Your task to perform on an android device: Set the phone to "Do not disturb". Image 0: 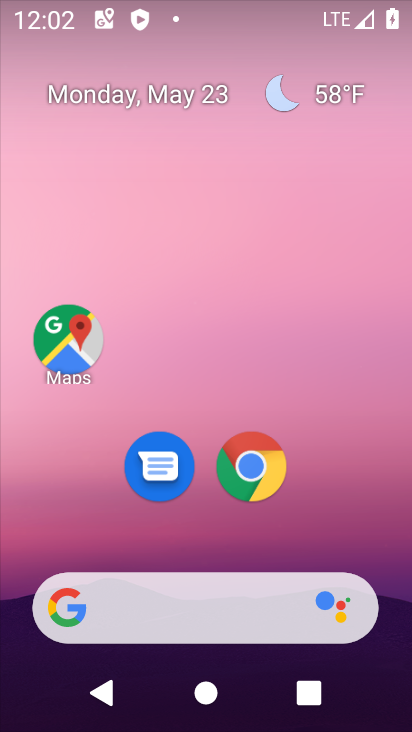
Step 0: drag from (164, 547) to (218, 64)
Your task to perform on an android device: Set the phone to "Do not disturb". Image 1: 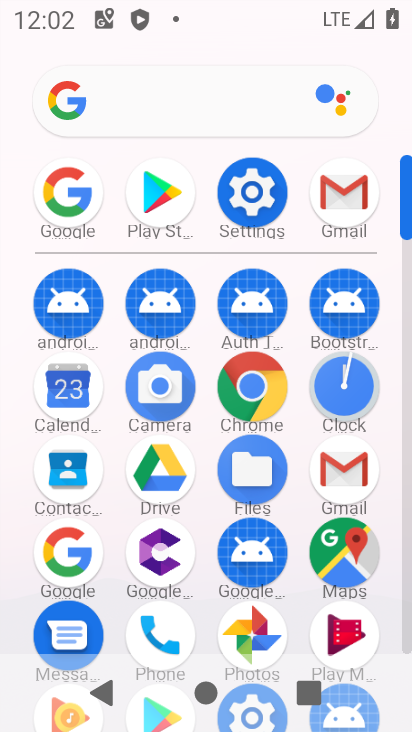
Step 1: click (248, 191)
Your task to perform on an android device: Set the phone to "Do not disturb". Image 2: 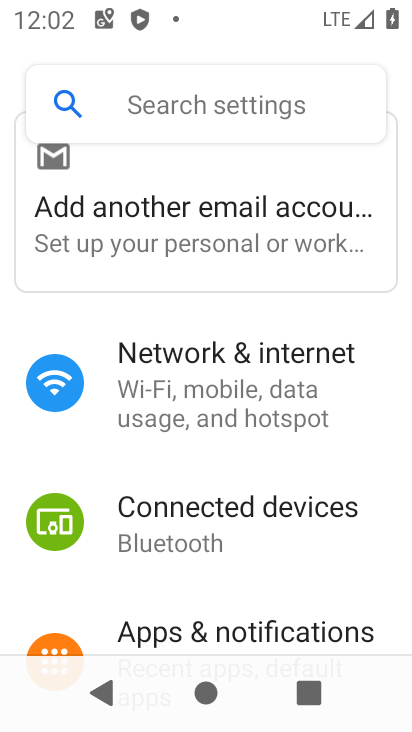
Step 2: drag from (246, 576) to (268, 208)
Your task to perform on an android device: Set the phone to "Do not disturb". Image 3: 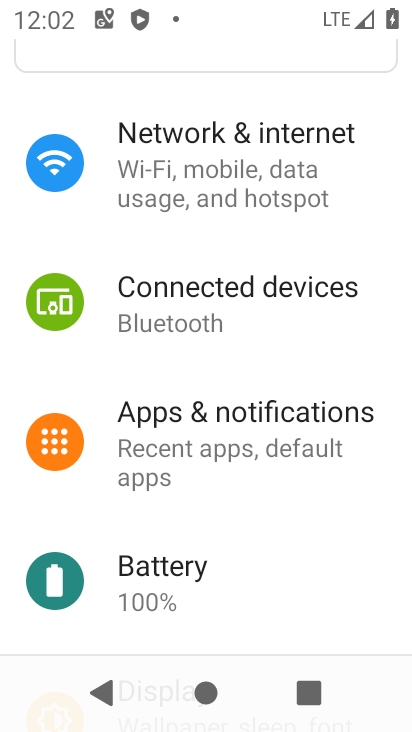
Step 3: drag from (245, 592) to (255, 218)
Your task to perform on an android device: Set the phone to "Do not disturb". Image 4: 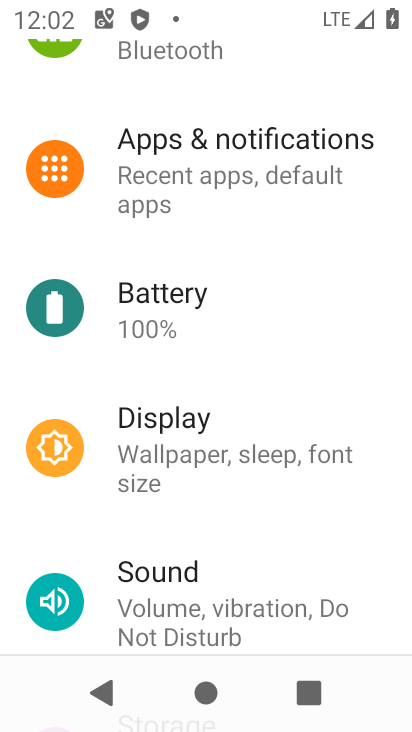
Step 4: click (209, 604)
Your task to perform on an android device: Set the phone to "Do not disturb". Image 5: 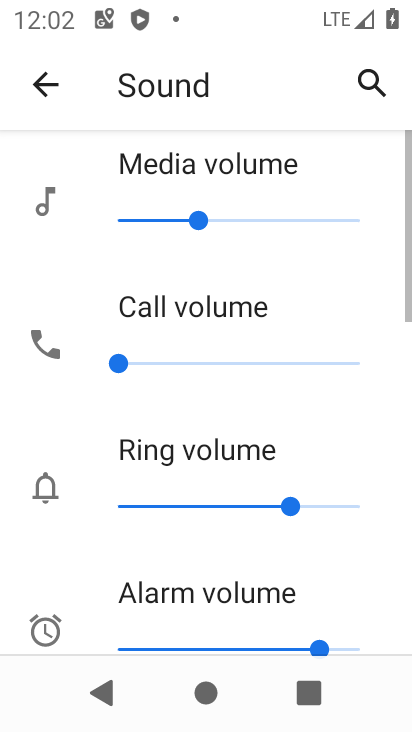
Step 5: drag from (214, 536) to (236, 35)
Your task to perform on an android device: Set the phone to "Do not disturb". Image 6: 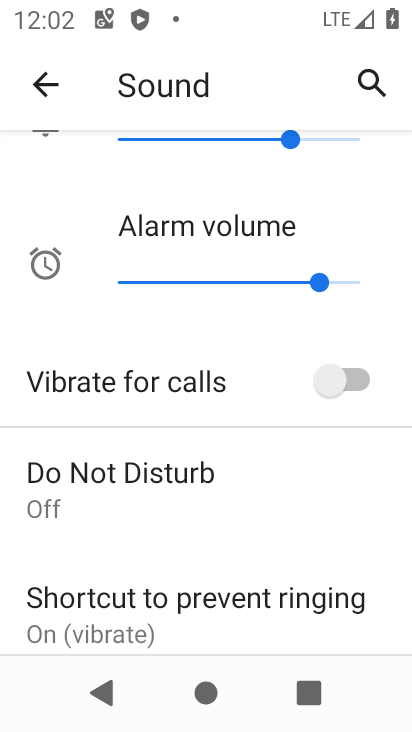
Step 6: click (89, 489)
Your task to perform on an android device: Set the phone to "Do not disturb". Image 7: 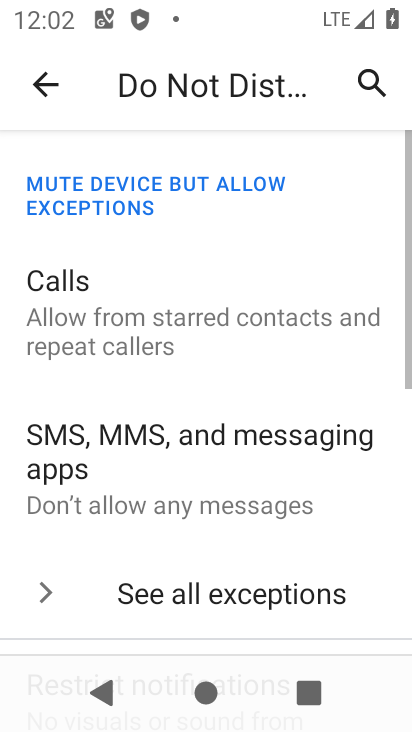
Step 7: drag from (211, 529) to (238, 80)
Your task to perform on an android device: Set the phone to "Do not disturb". Image 8: 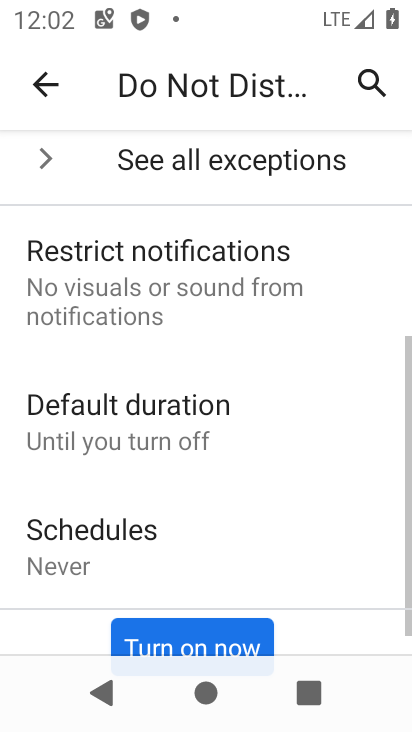
Step 8: drag from (186, 630) to (216, 350)
Your task to perform on an android device: Set the phone to "Do not disturb". Image 9: 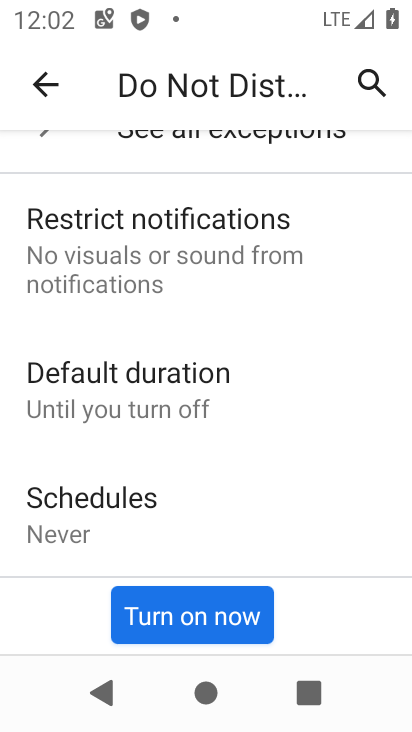
Step 9: click (172, 613)
Your task to perform on an android device: Set the phone to "Do not disturb". Image 10: 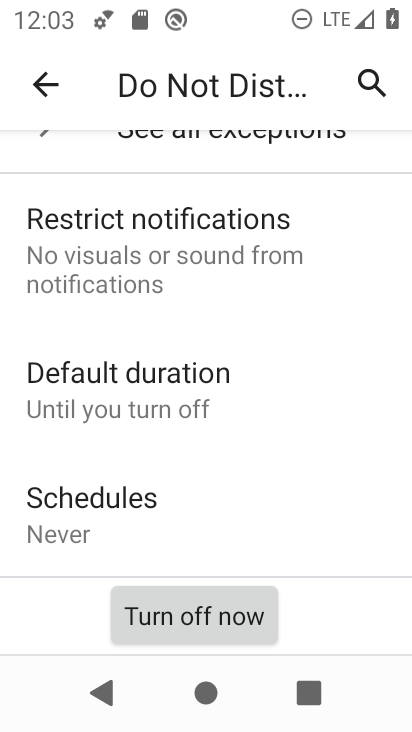
Step 10: task complete